Your task to perform on an android device: Go to display settings Image 0: 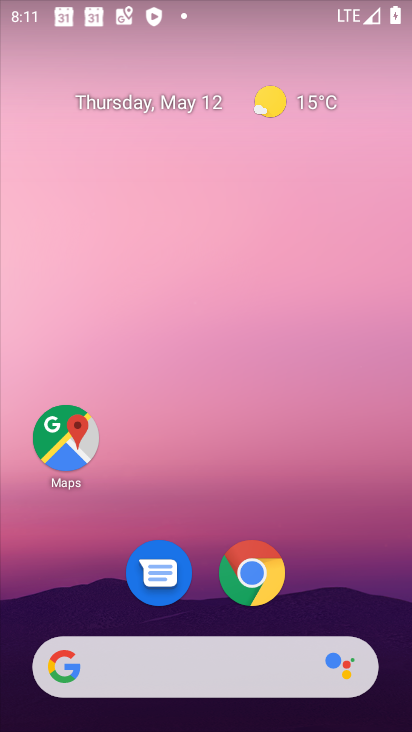
Step 0: drag from (340, 534) to (206, 6)
Your task to perform on an android device: Go to display settings Image 1: 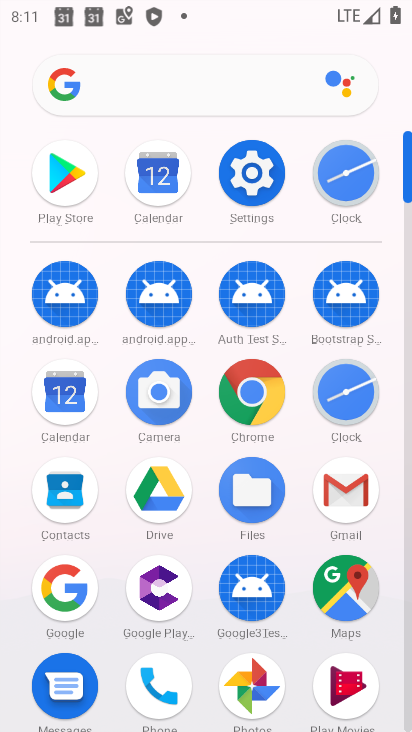
Step 1: click (260, 170)
Your task to perform on an android device: Go to display settings Image 2: 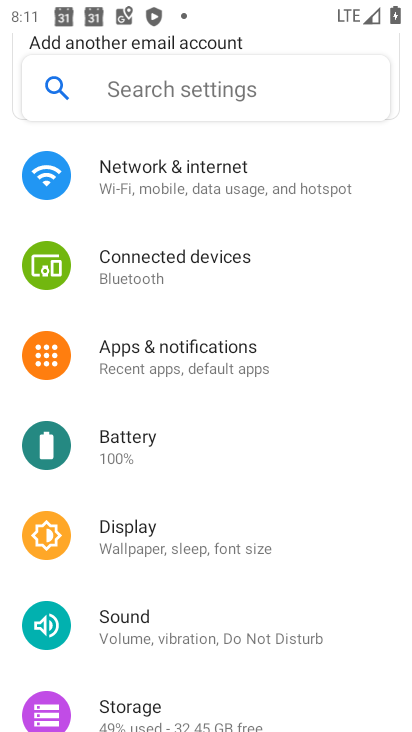
Step 2: click (140, 533)
Your task to perform on an android device: Go to display settings Image 3: 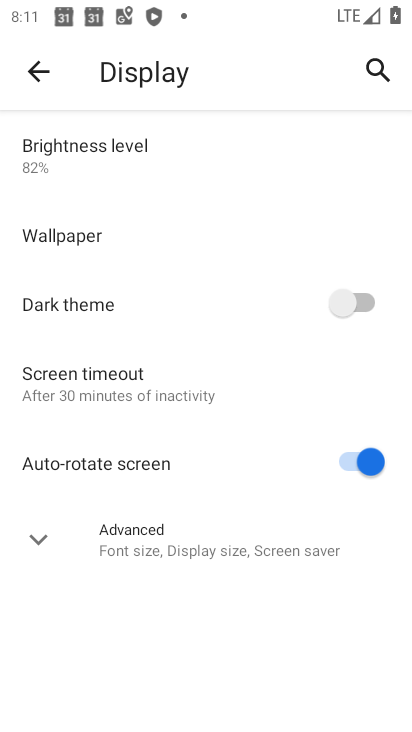
Step 3: task complete